Your task to perform on an android device: change alarm snooze length Image 0: 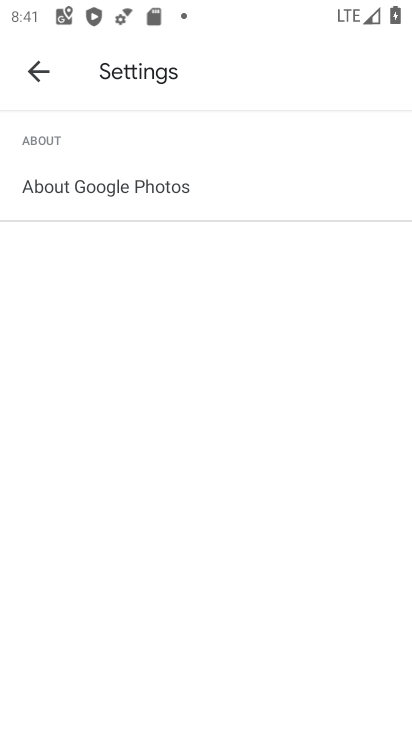
Step 0: press home button
Your task to perform on an android device: change alarm snooze length Image 1: 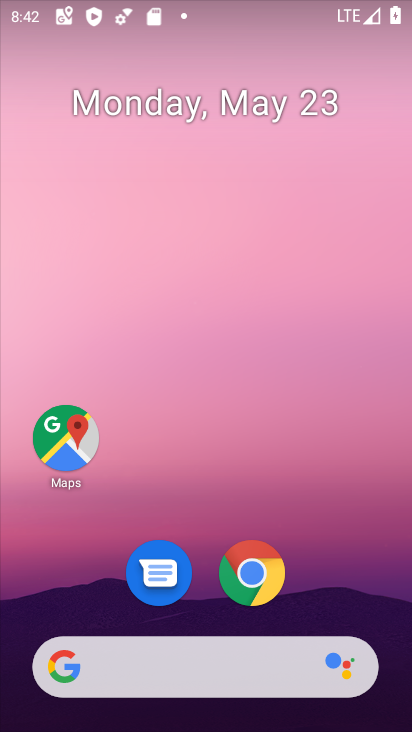
Step 1: drag from (221, 516) to (219, 40)
Your task to perform on an android device: change alarm snooze length Image 2: 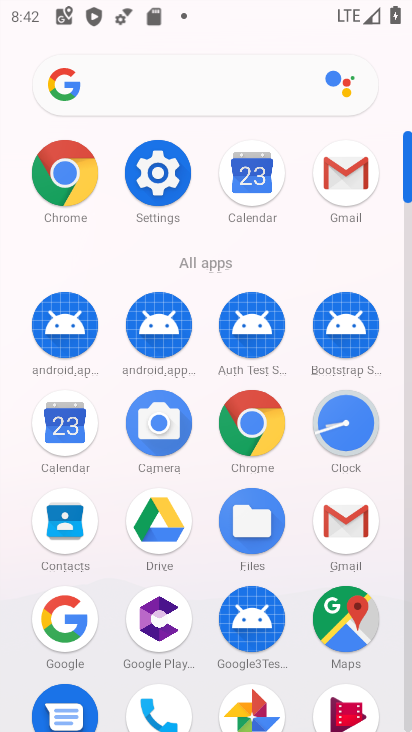
Step 2: click (353, 429)
Your task to perform on an android device: change alarm snooze length Image 3: 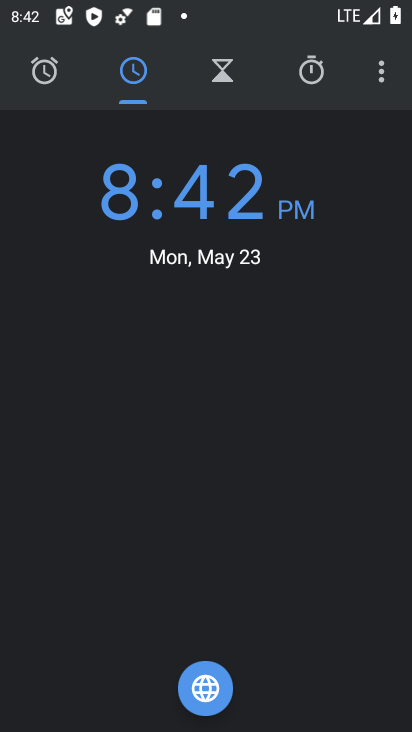
Step 3: click (382, 80)
Your task to perform on an android device: change alarm snooze length Image 4: 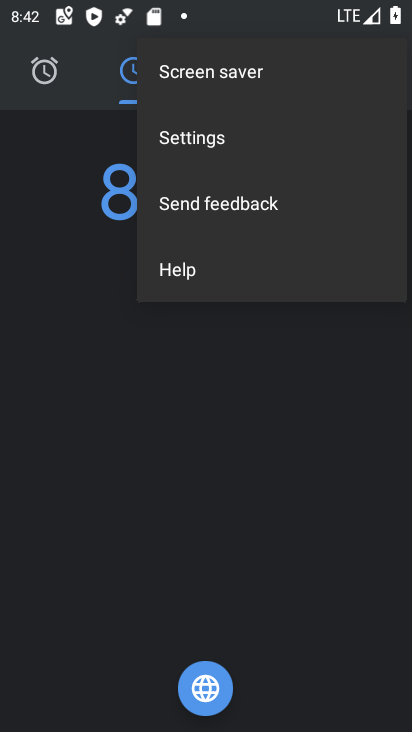
Step 4: click (309, 138)
Your task to perform on an android device: change alarm snooze length Image 5: 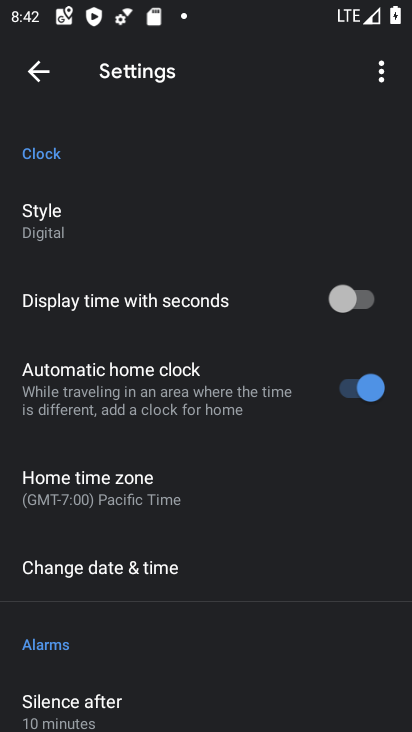
Step 5: drag from (221, 498) to (239, 151)
Your task to perform on an android device: change alarm snooze length Image 6: 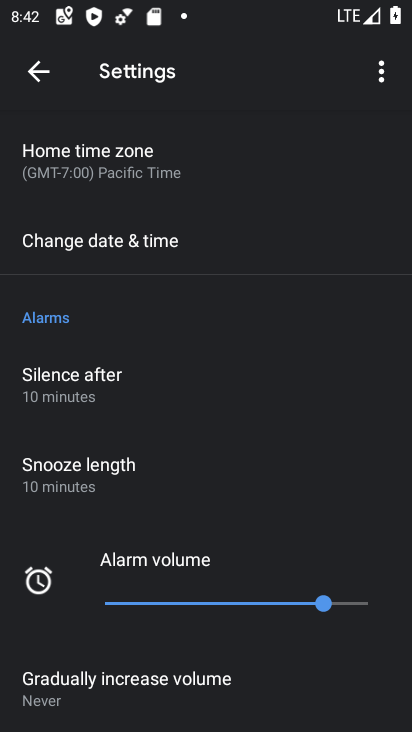
Step 6: click (117, 458)
Your task to perform on an android device: change alarm snooze length Image 7: 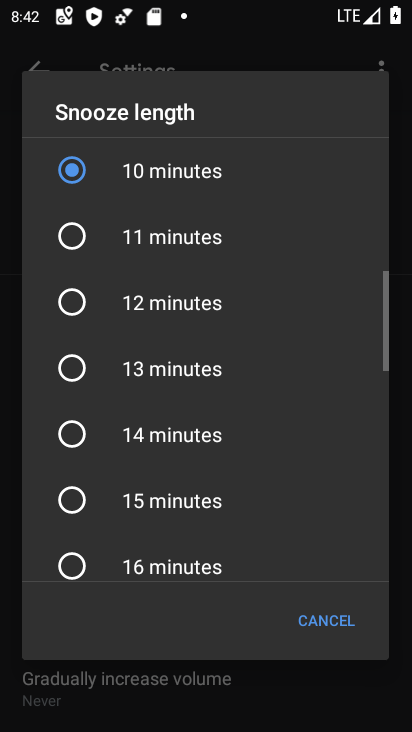
Step 7: click (132, 295)
Your task to perform on an android device: change alarm snooze length Image 8: 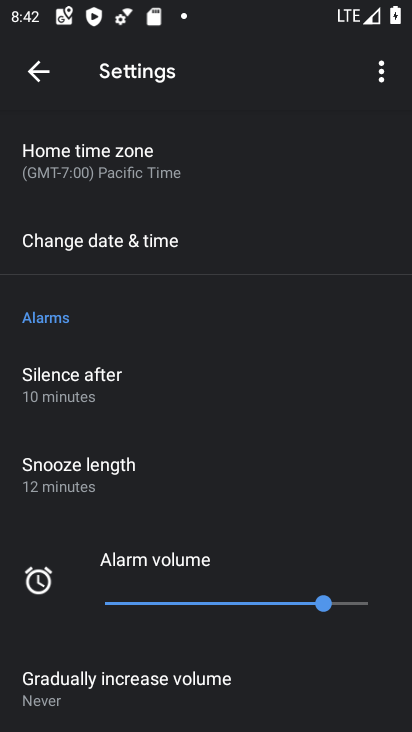
Step 8: task complete